Your task to perform on an android device: all mails in gmail Image 0: 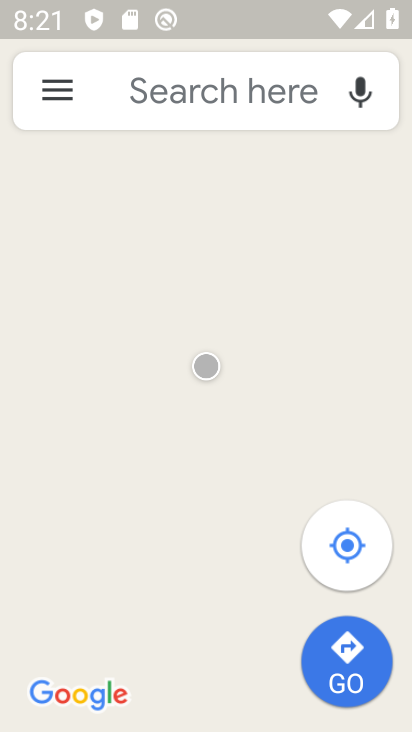
Step 0: press home button
Your task to perform on an android device: all mails in gmail Image 1: 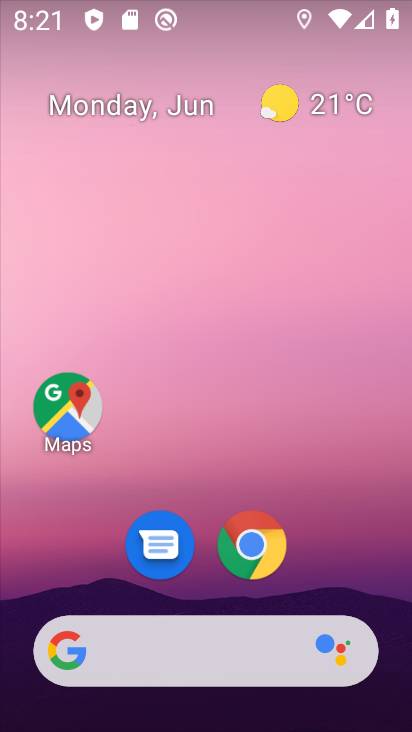
Step 1: drag from (311, 579) to (291, 210)
Your task to perform on an android device: all mails in gmail Image 2: 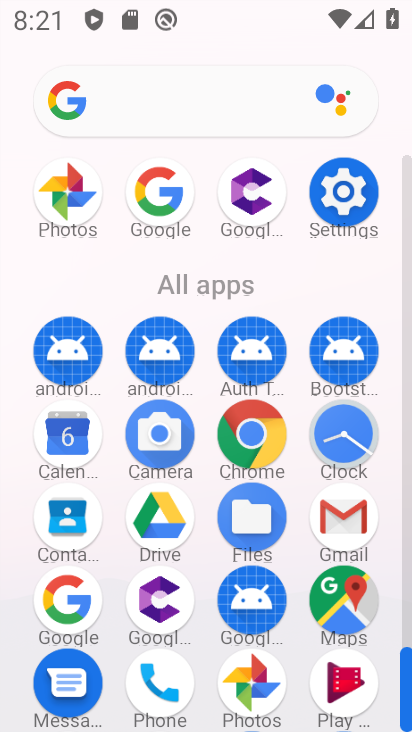
Step 2: drag from (333, 517) to (97, 304)
Your task to perform on an android device: all mails in gmail Image 3: 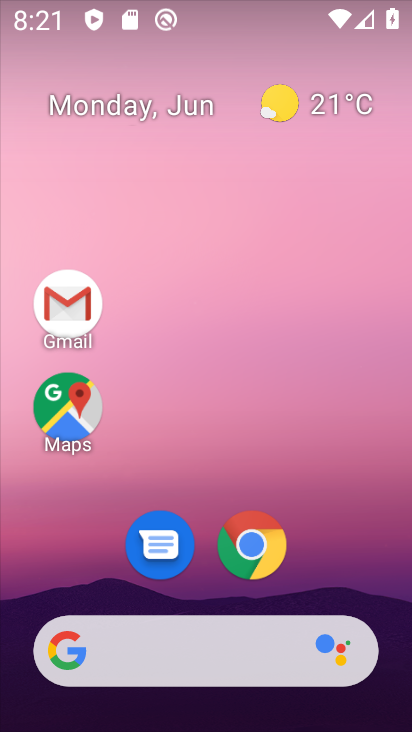
Step 3: click (43, 303)
Your task to perform on an android device: all mails in gmail Image 4: 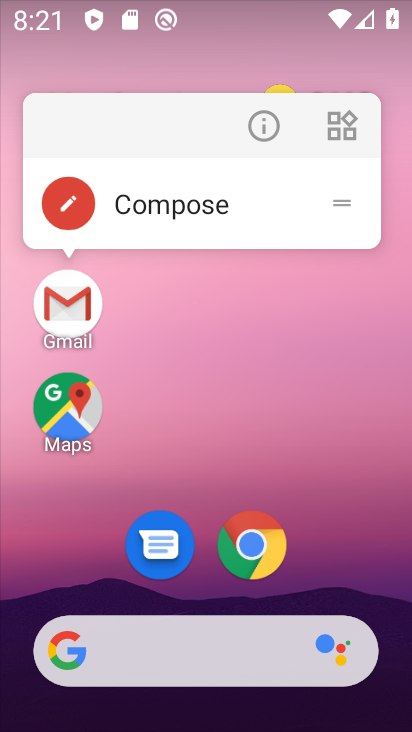
Step 4: click (61, 317)
Your task to perform on an android device: all mails in gmail Image 5: 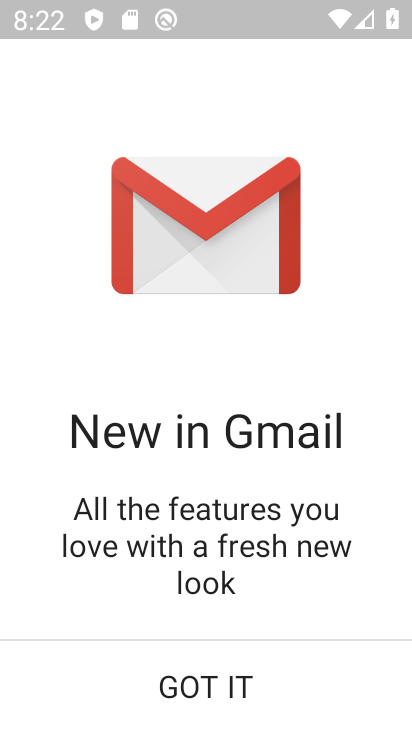
Step 5: click (299, 686)
Your task to perform on an android device: all mails in gmail Image 6: 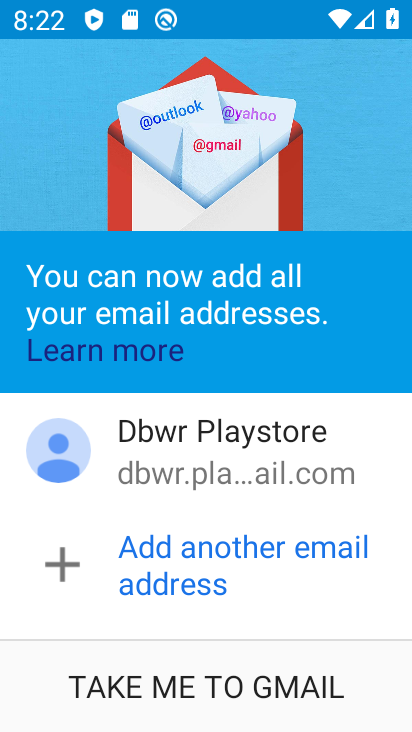
Step 6: click (190, 664)
Your task to perform on an android device: all mails in gmail Image 7: 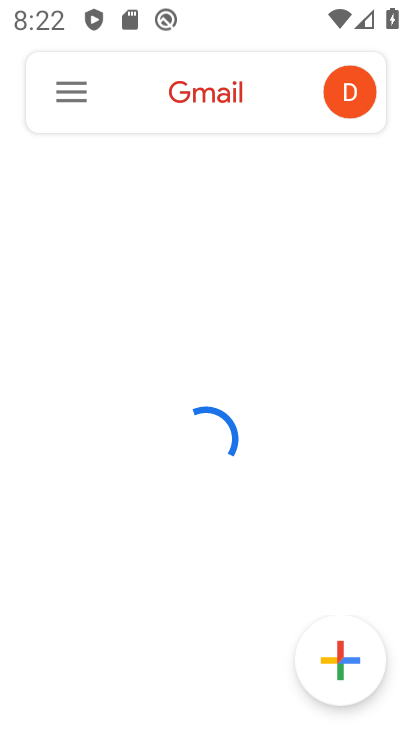
Step 7: click (67, 91)
Your task to perform on an android device: all mails in gmail Image 8: 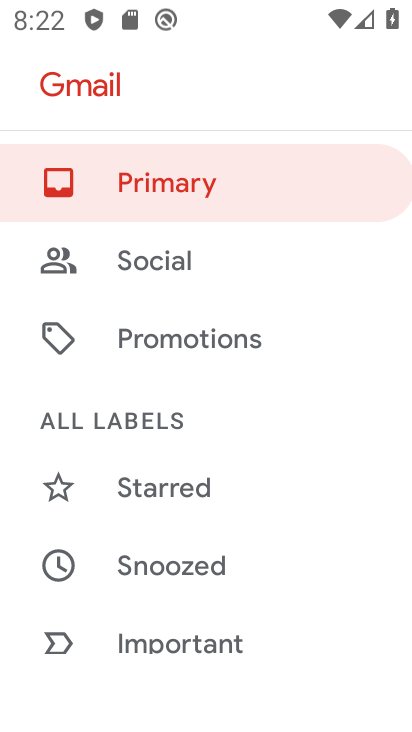
Step 8: drag from (209, 550) to (244, 251)
Your task to perform on an android device: all mails in gmail Image 9: 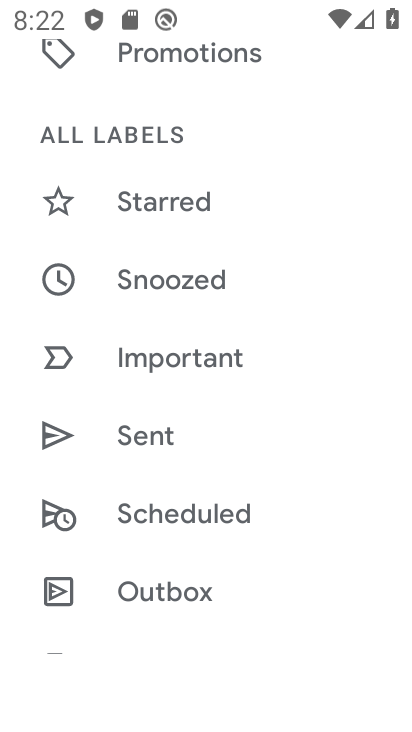
Step 9: drag from (286, 589) to (266, 315)
Your task to perform on an android device: all mails in gmail Image 10: 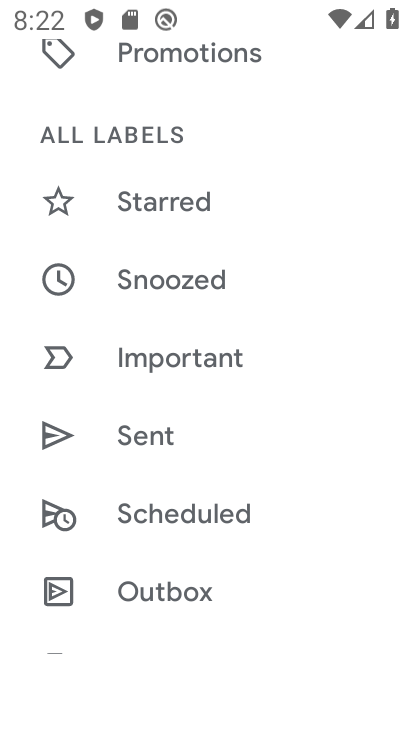
Step 10: drag from (266, 315) to (305, 597)
Your task to perform on an android device: all mails in gmail Image 11: 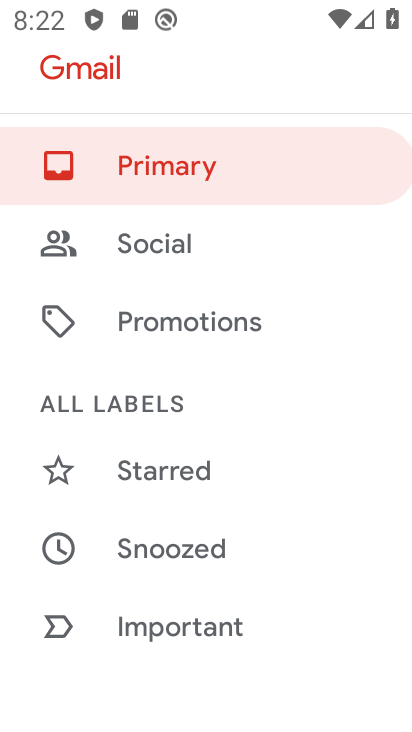
Step 11: drag from (300, 598) to (237, 300)
Your task to perform on an android device: all mails in gmail Image 12: 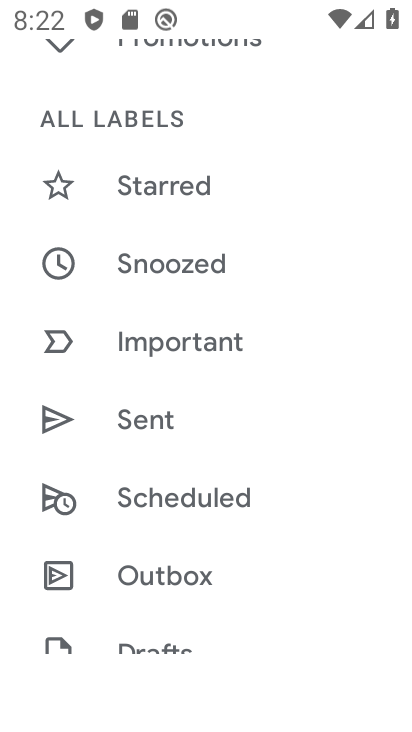
Step 12: drag from (259, 574) to (301, 331)
Your task to perform on an android device: all mails in gmail Image 13: 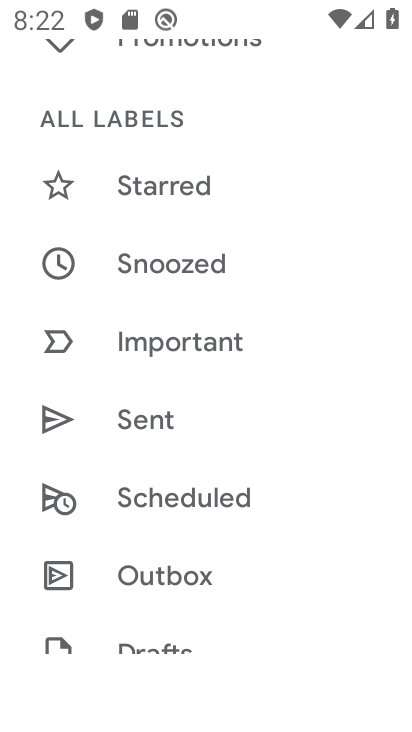
Step 13: drag from (310, 539) to (317, 175)
Your task to perform on an android device: all mails in gmail Image 14: 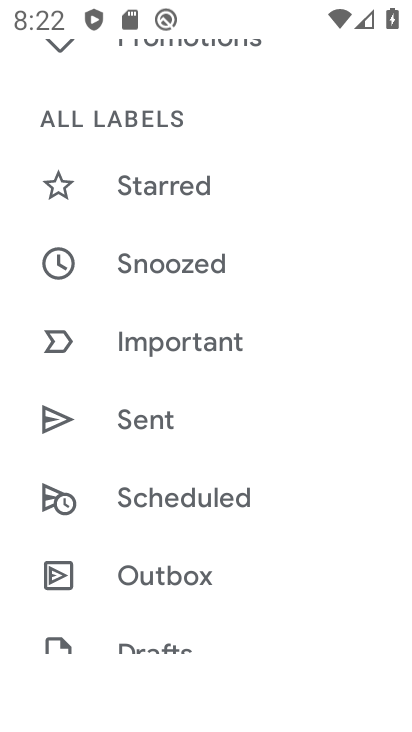
Step 14: drag from (247, 601) to (291, 220)
Your task to perform on an android device: all mails in gmail Image 15: 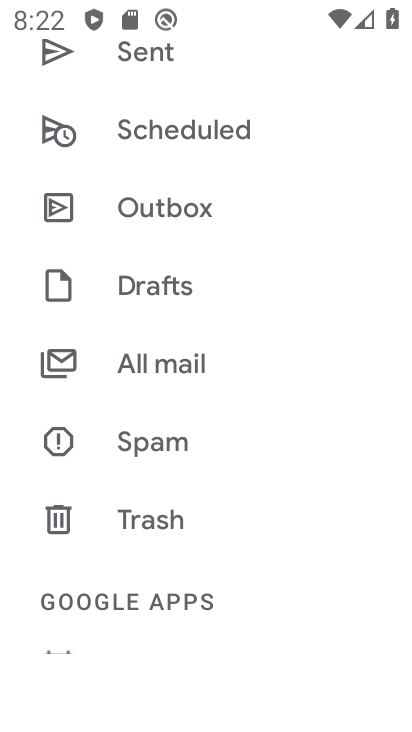
Step 15: click (203, 357)
Your task to perform on an android device: all mails in gmail Image 16: 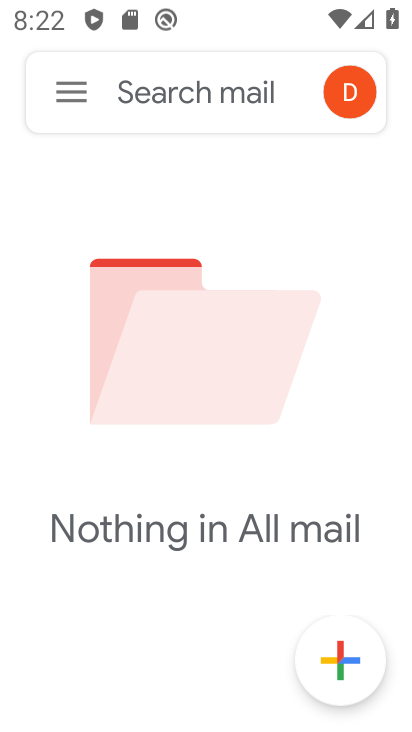
Step 16: task complete